Your task to perform on an android device: install app "Microsoft Authenticator" Image 0: 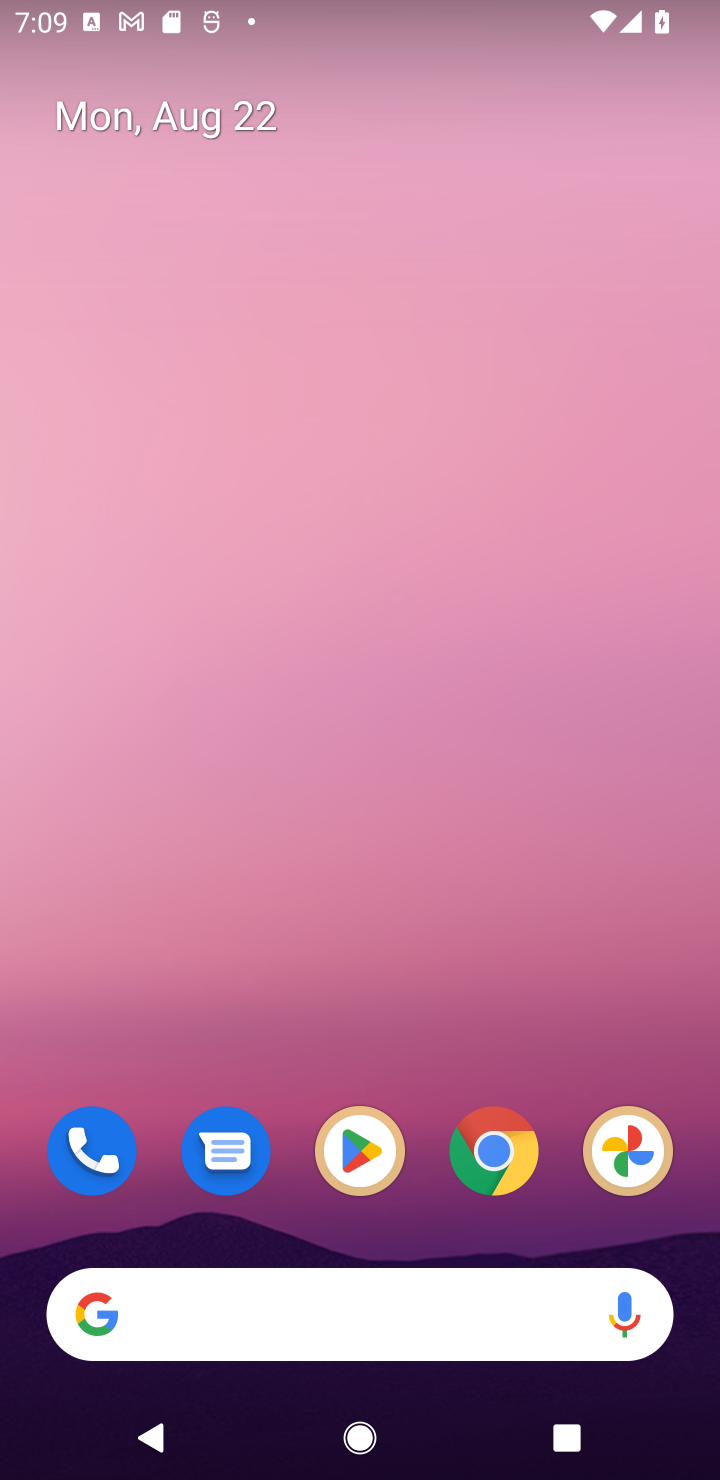
Step 0: press home button
Your task to perform on an android device: install app "Microsoft Authenticator" Image 1: 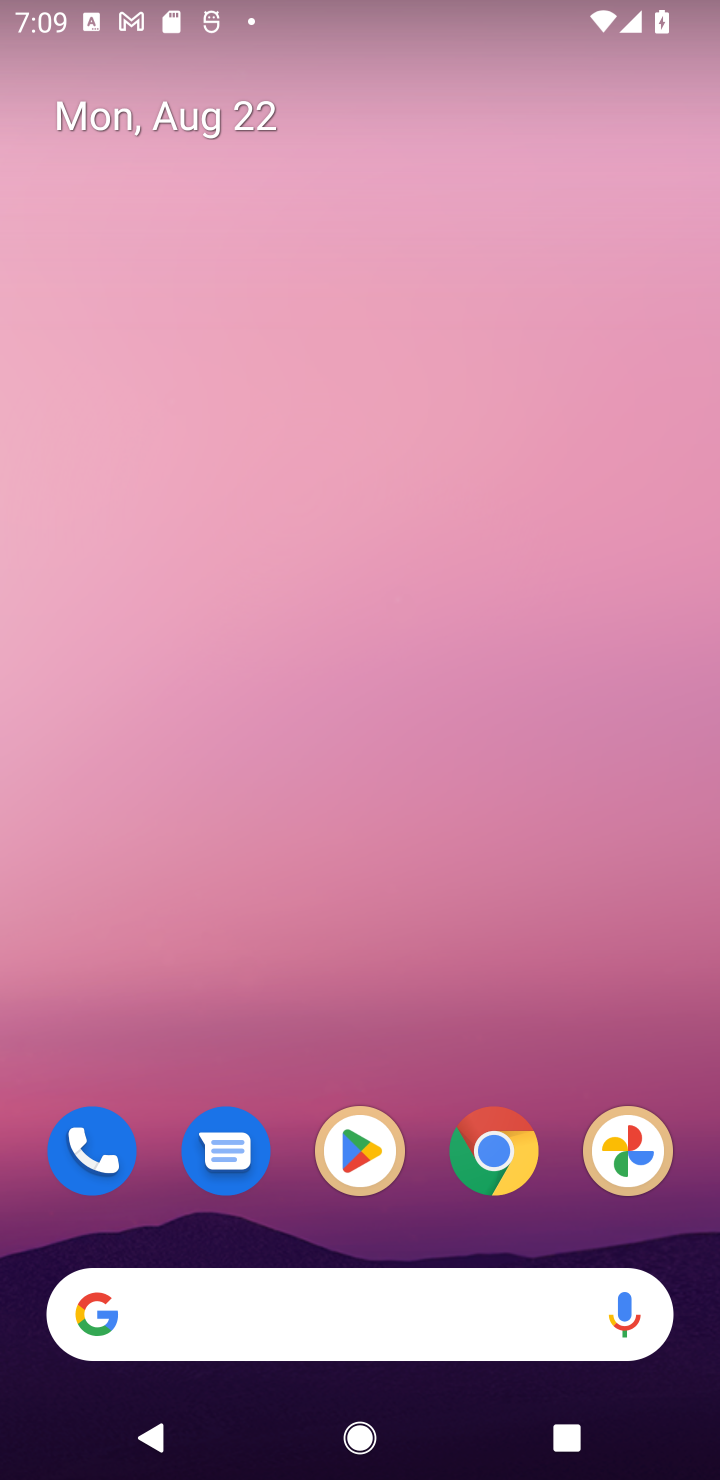
Step 1: click (348, 1150)
Your task to perform on an android device: install app "Microsoft Authenticator" Image 2: 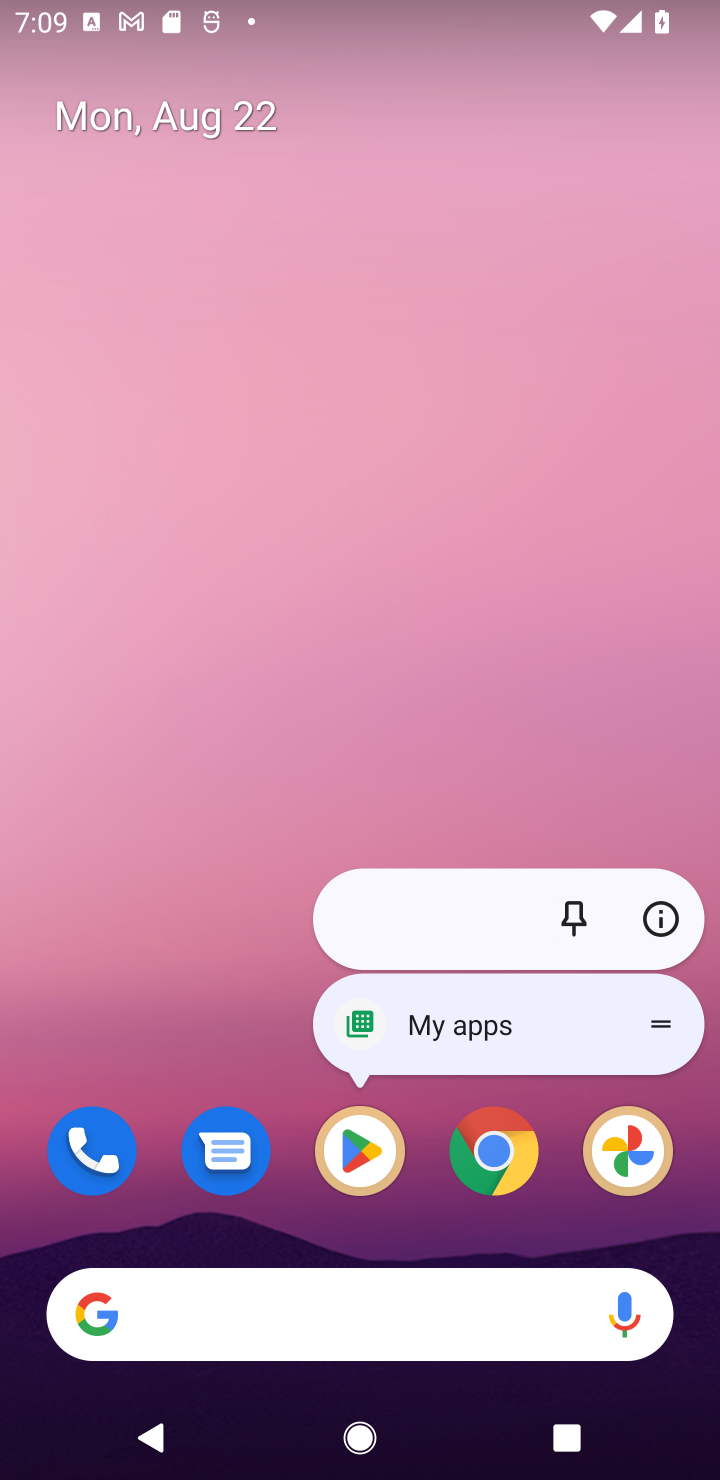
Step 2: click (363, 1166)
Your task to perform on an android device: install app "Microsoft Authenticator" Image 3: 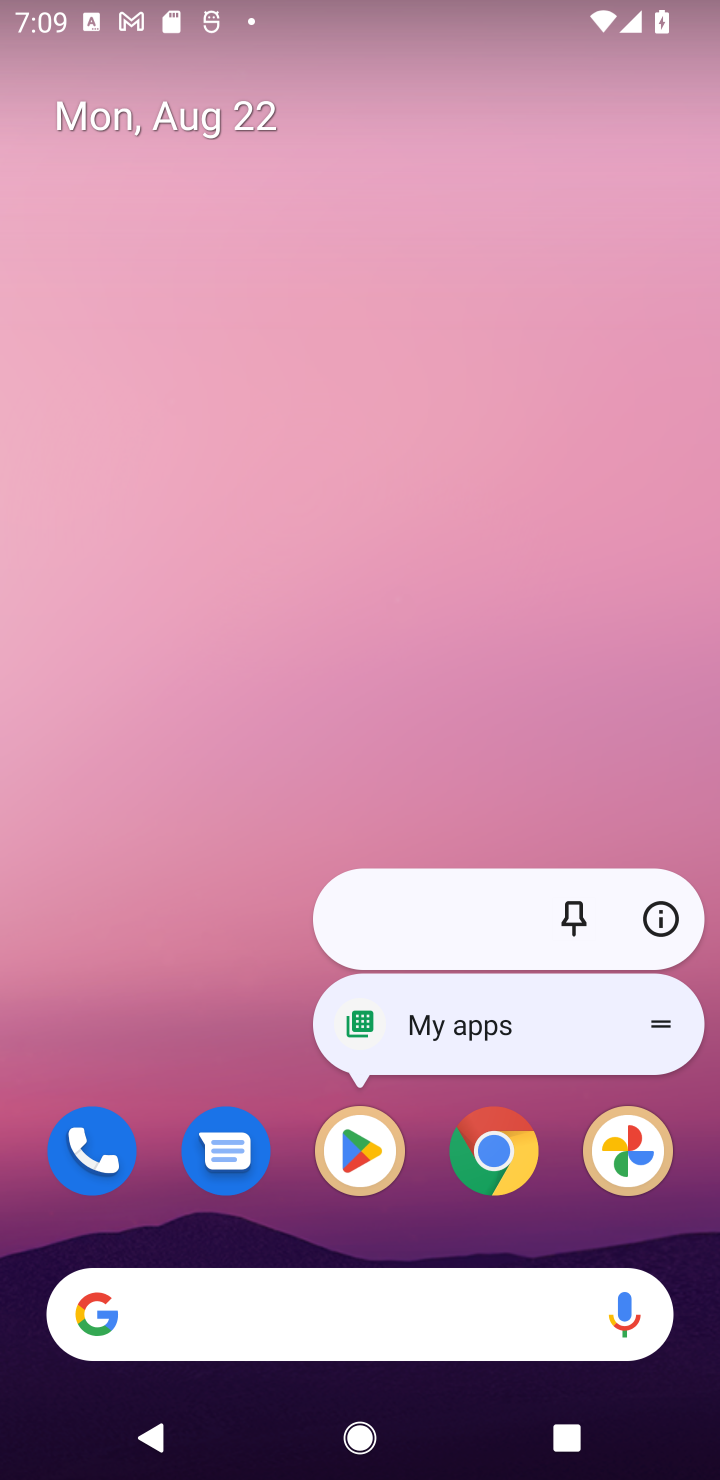
Step 3: click (363, 1166)
Your task to perform on an android device: install app "Microsoft Authenticator" Image 4: 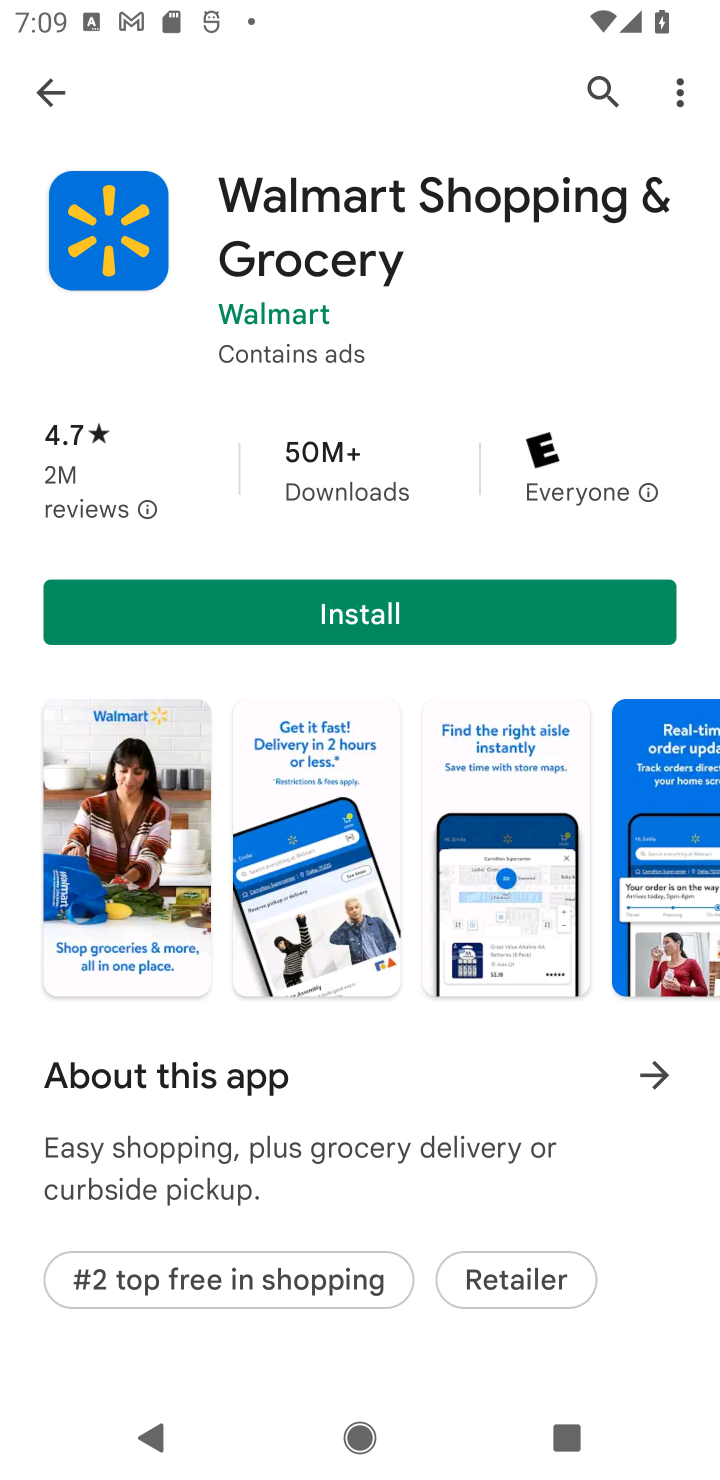
Step 4: click (605, 91)
Your task to perform on an android device: install app "Microsoft Authenticator" Image 5: 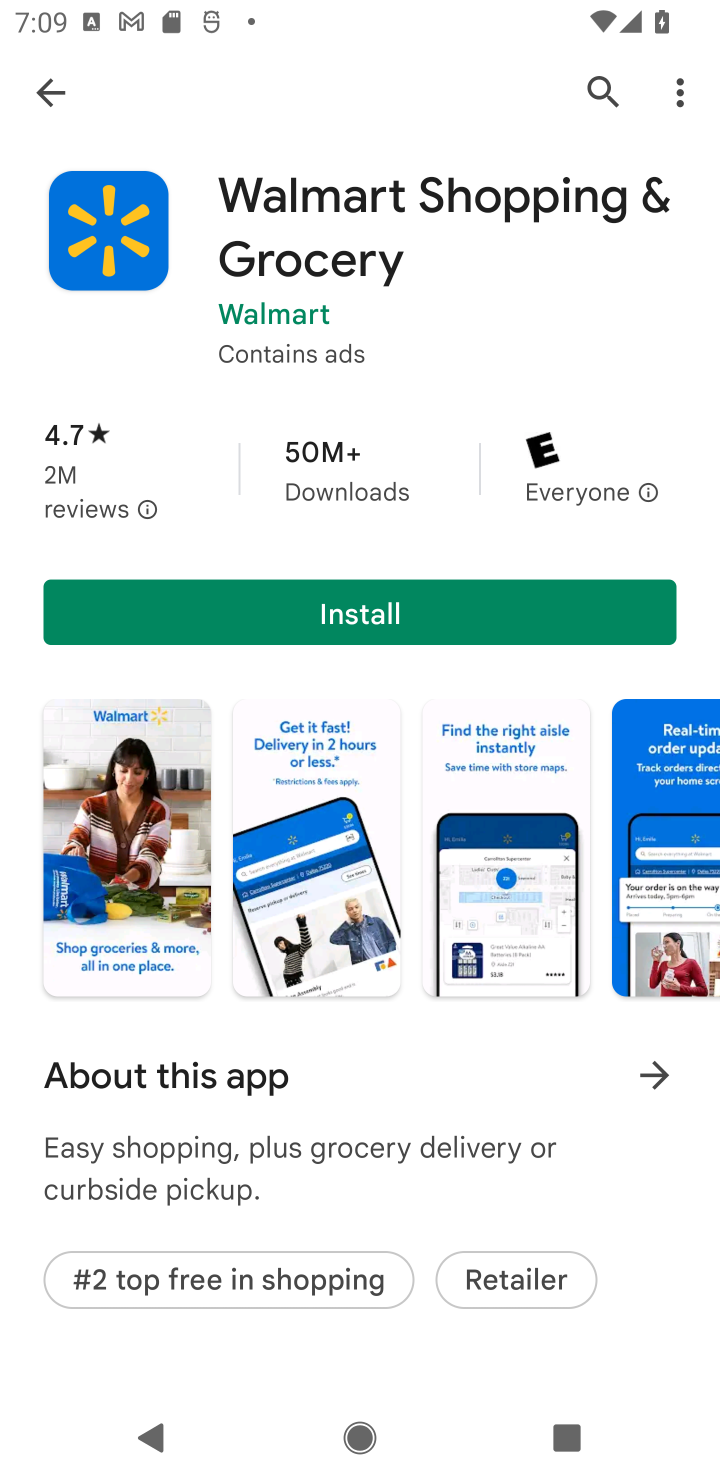
Step 5: click (589, 91)
Your task to perform on an android device: install app "Microsoft Authenticator" Image 6: 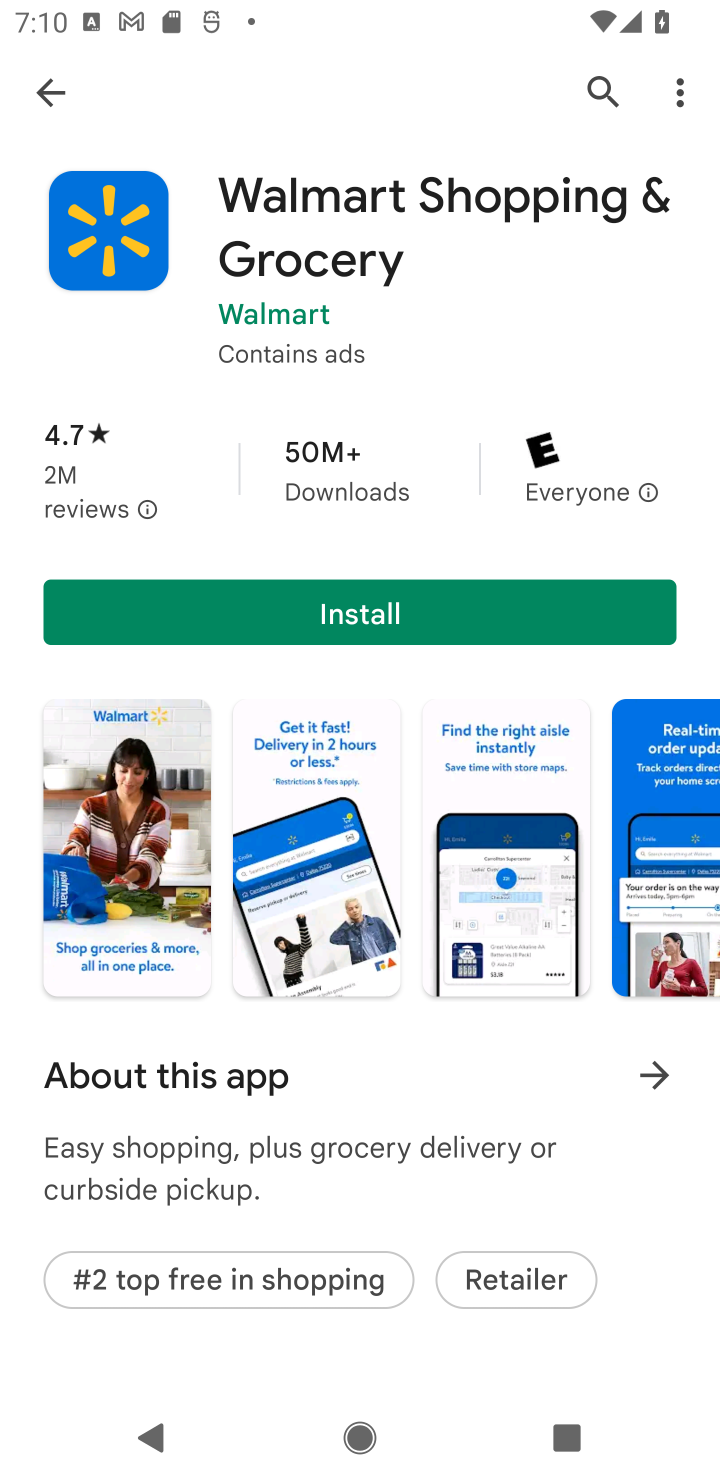
Step 6: click (598, 84)
Your task to perform on an android device: install app "Microsoft Authenticator" Image 7: 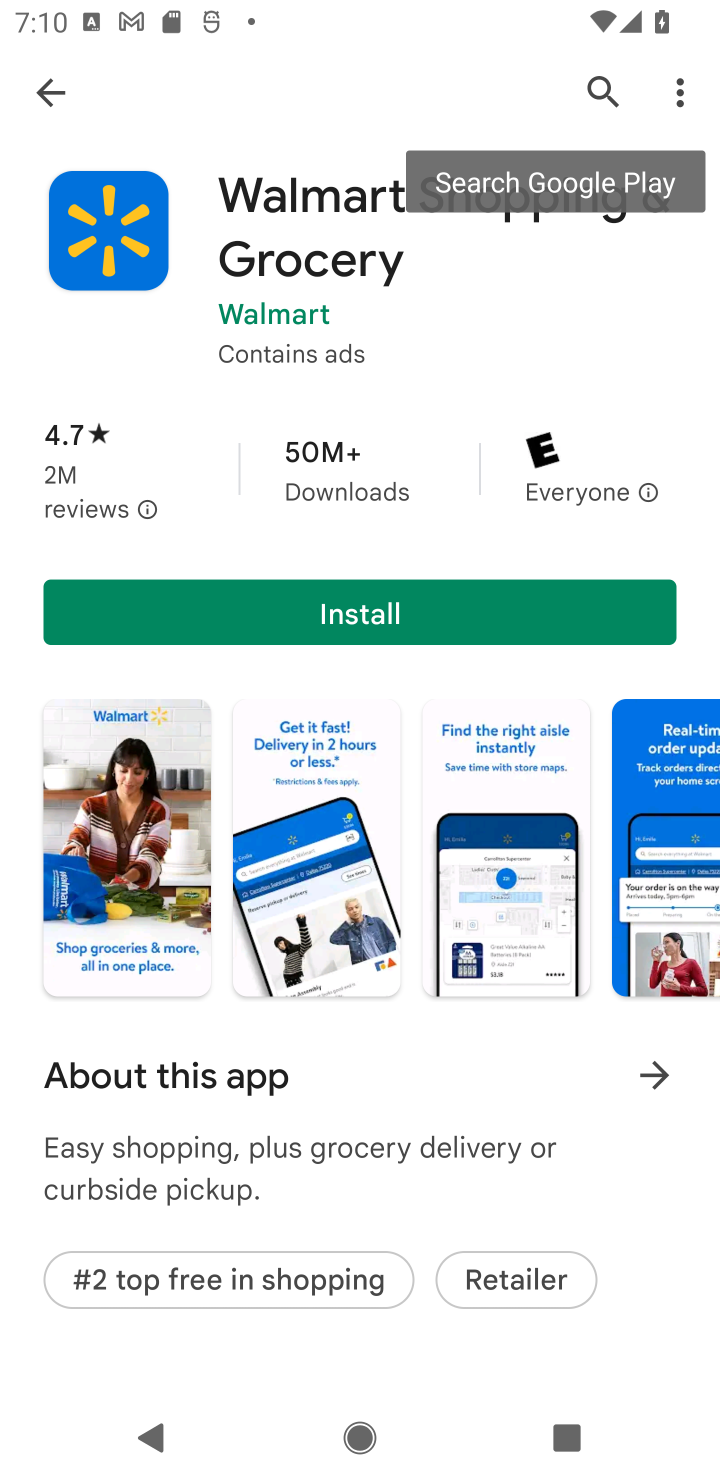
Step 7: click (598, 84)
Your task to perform on an android device: install app "Microsoft Authenticator" Image 8: 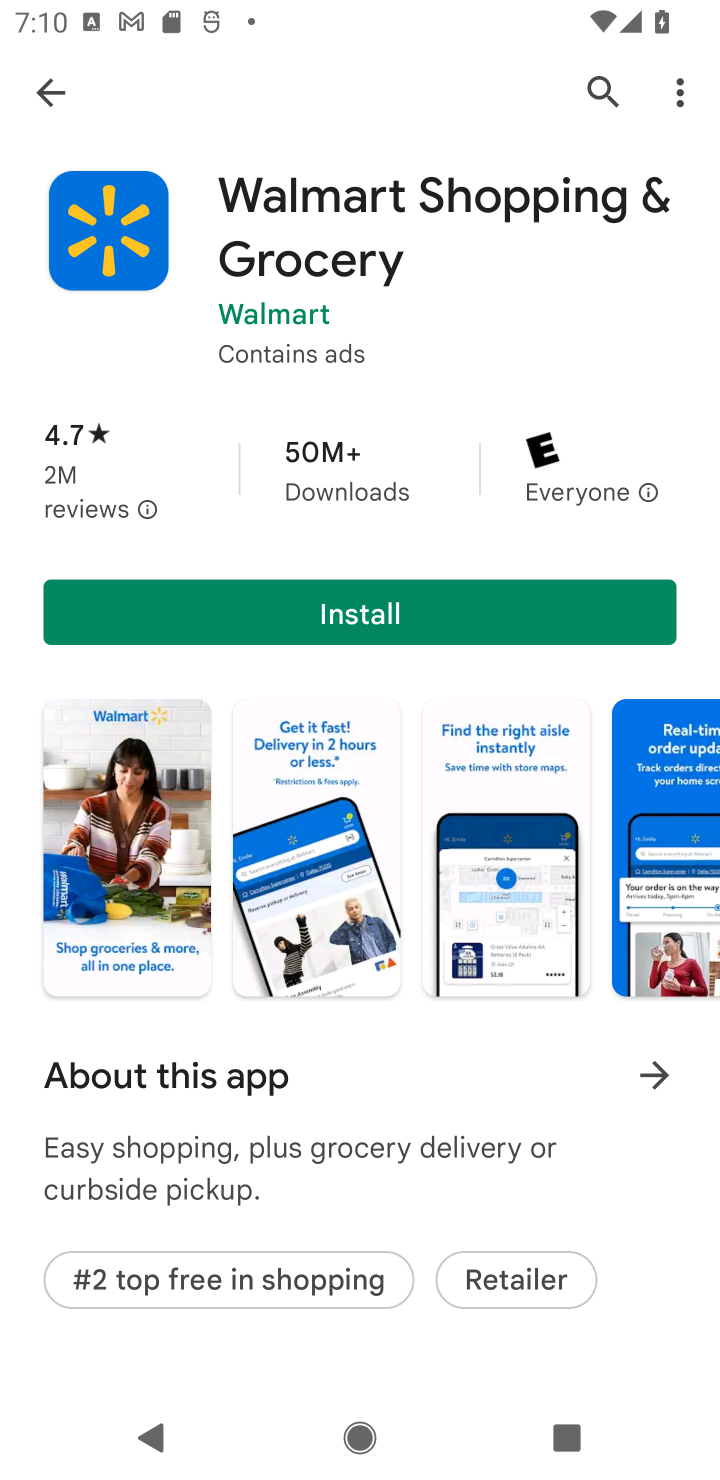
Step 8: click (597, 87)
Your task to perform on an android device: install app "Microsoft Authenticator" Image 9: 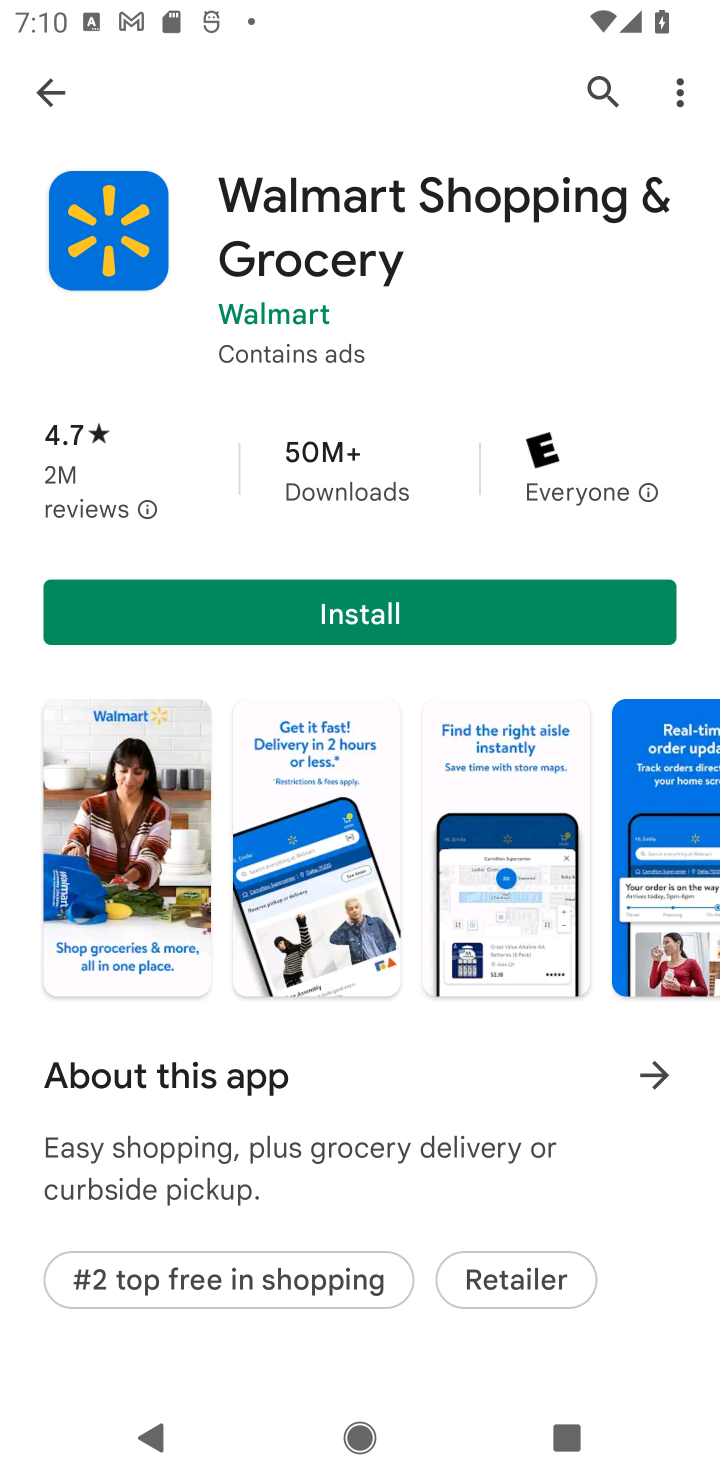
Step 9: click (595, 87)
Your task to perform on an android device: install app "Microsoft Authenticator" Image 10: 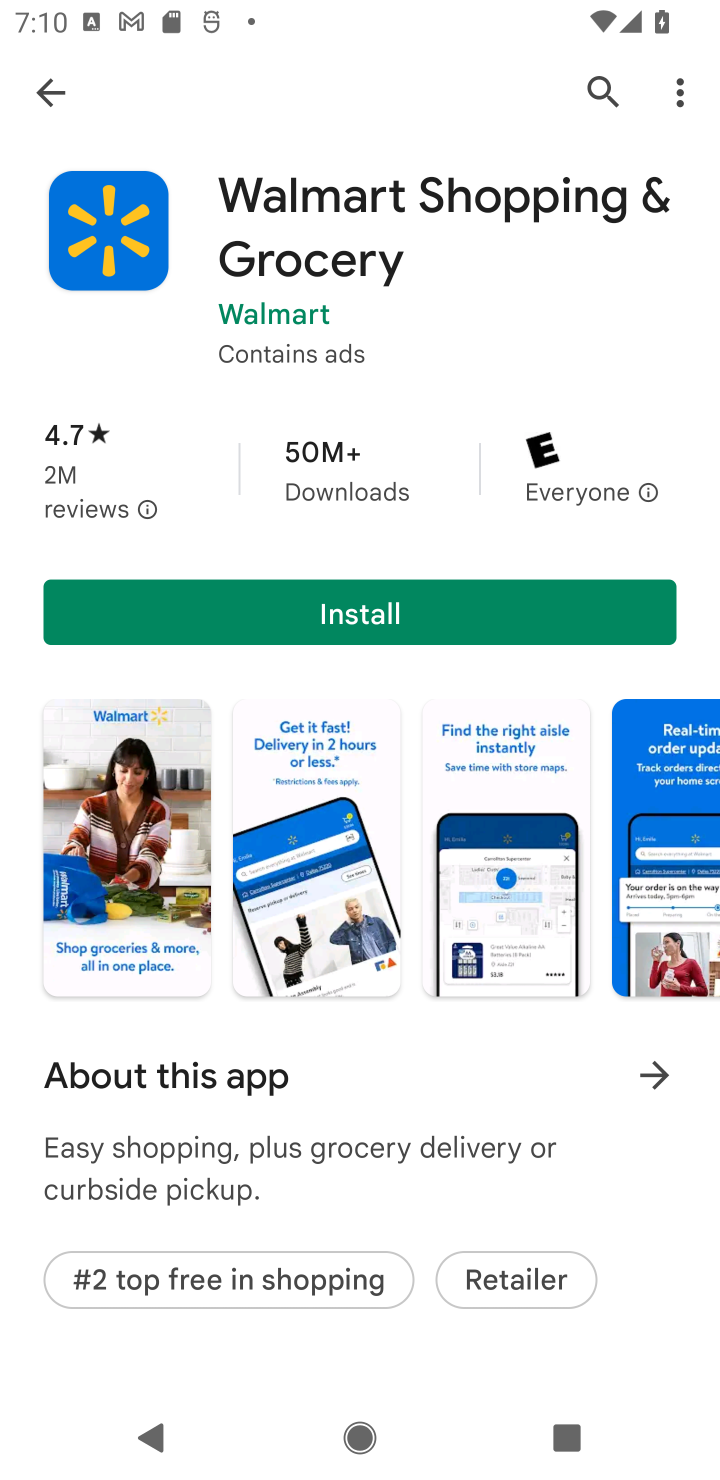
Step 10: click (44, 87)
Your task to perform on an android device: install app "Microsoft Authenticator" Image 11: 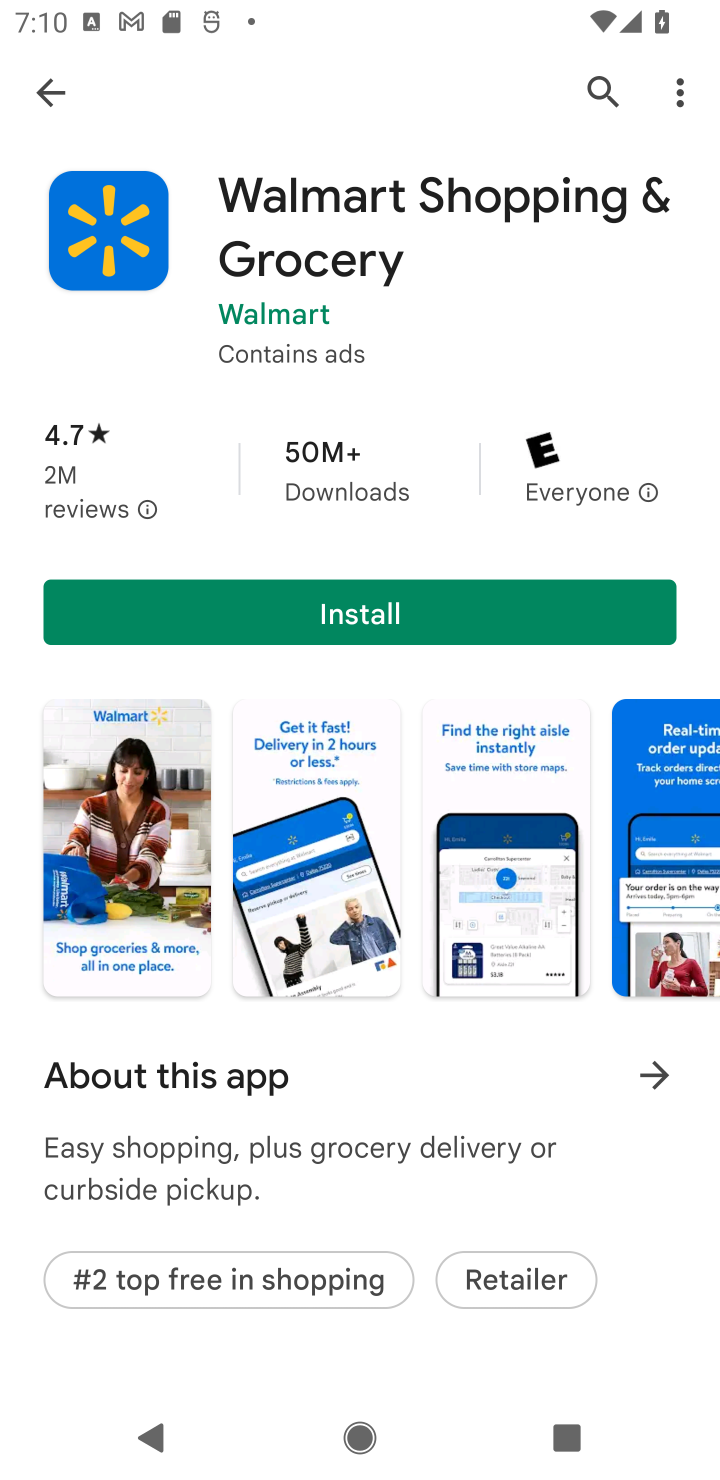
Step 11: click (598, 93)
Your task to perform on an android device: install app "Microsoft Authenticator" Image 12: 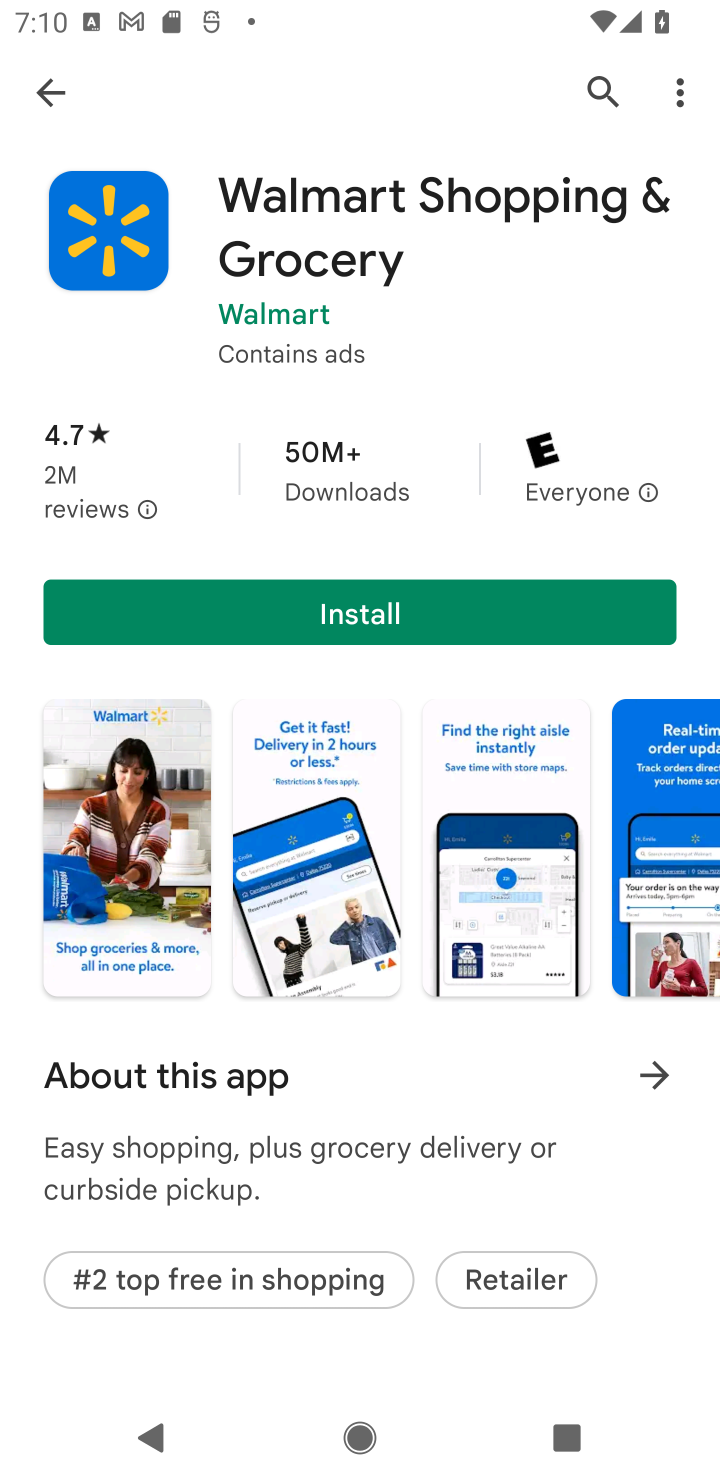
Step 12: press back button
Your task to perform on an android device: install app "Microsoft Authenticator" Image 13: 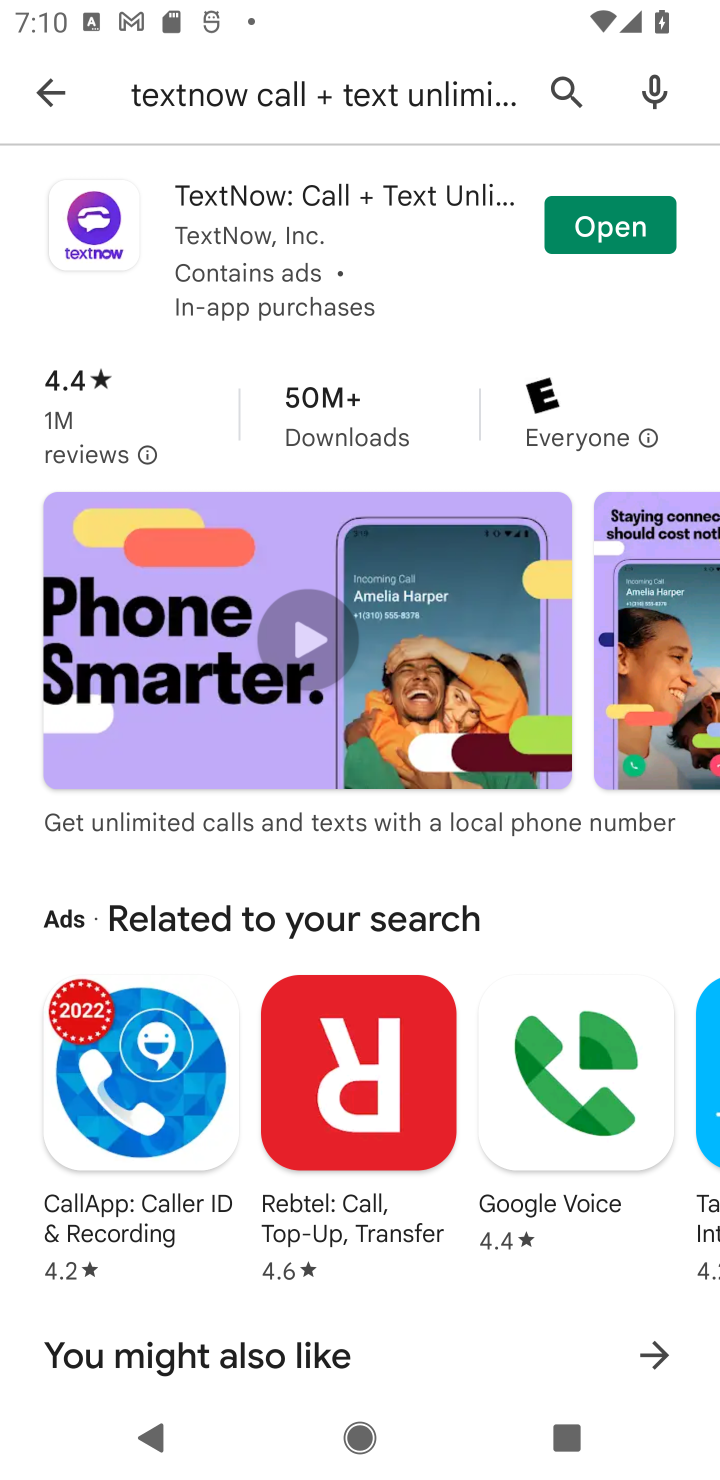
Step 13: click (559, 81)
Your task to perform on an android device: install app "Microsoft Authenticator" Image 14: 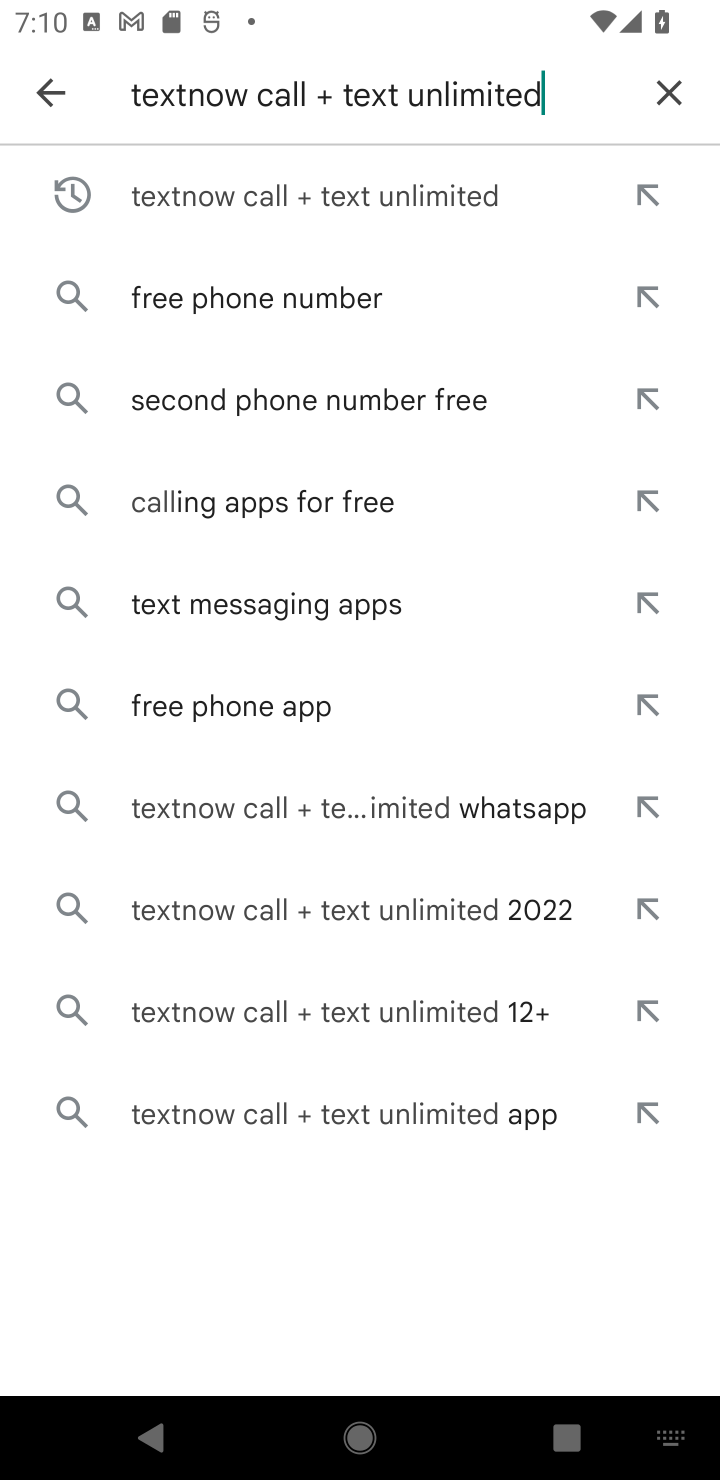
Step 14: click (553, 96)
Your task to perform on an android device: install app "Microsoft Authenticator" Image 15: 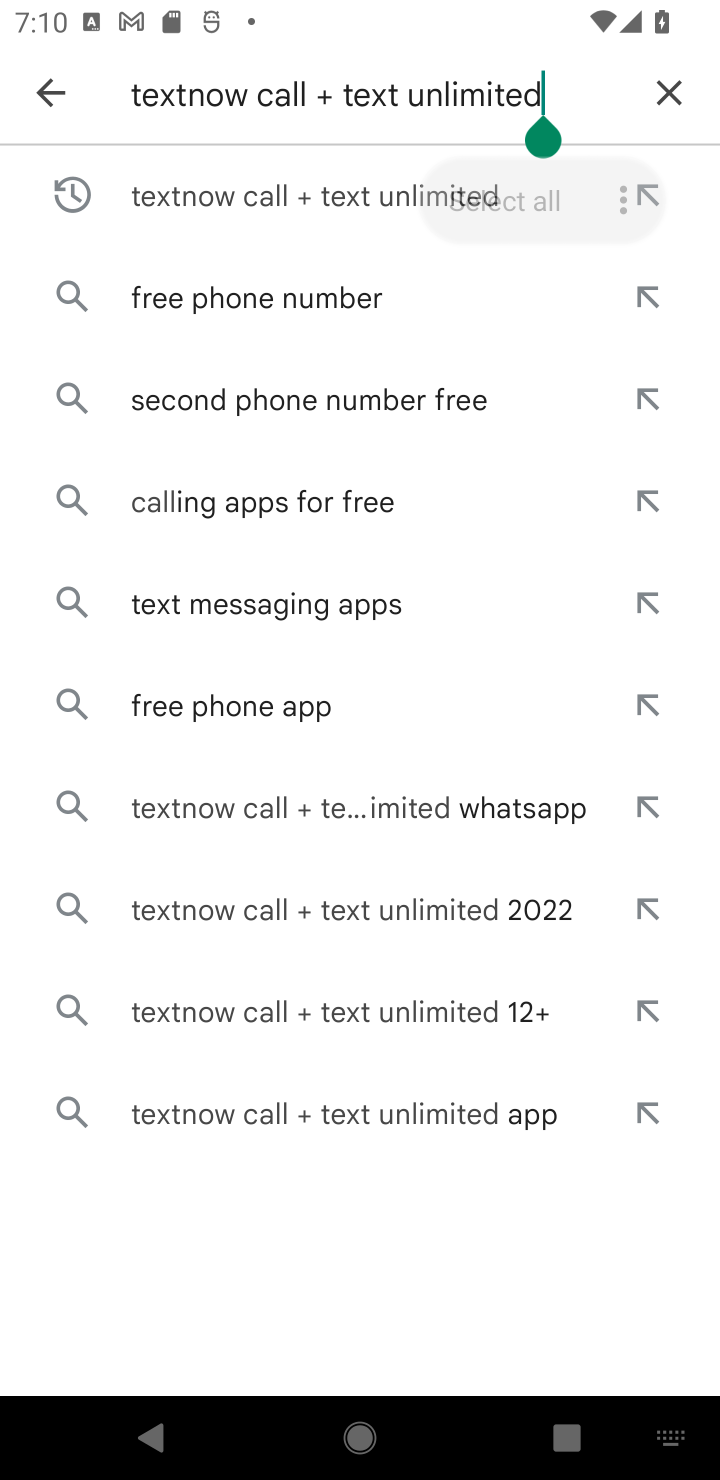
Step 15: click (658, 82)
Your task to perform on an android device: install app "Microsoft Authenticator" Image 16: 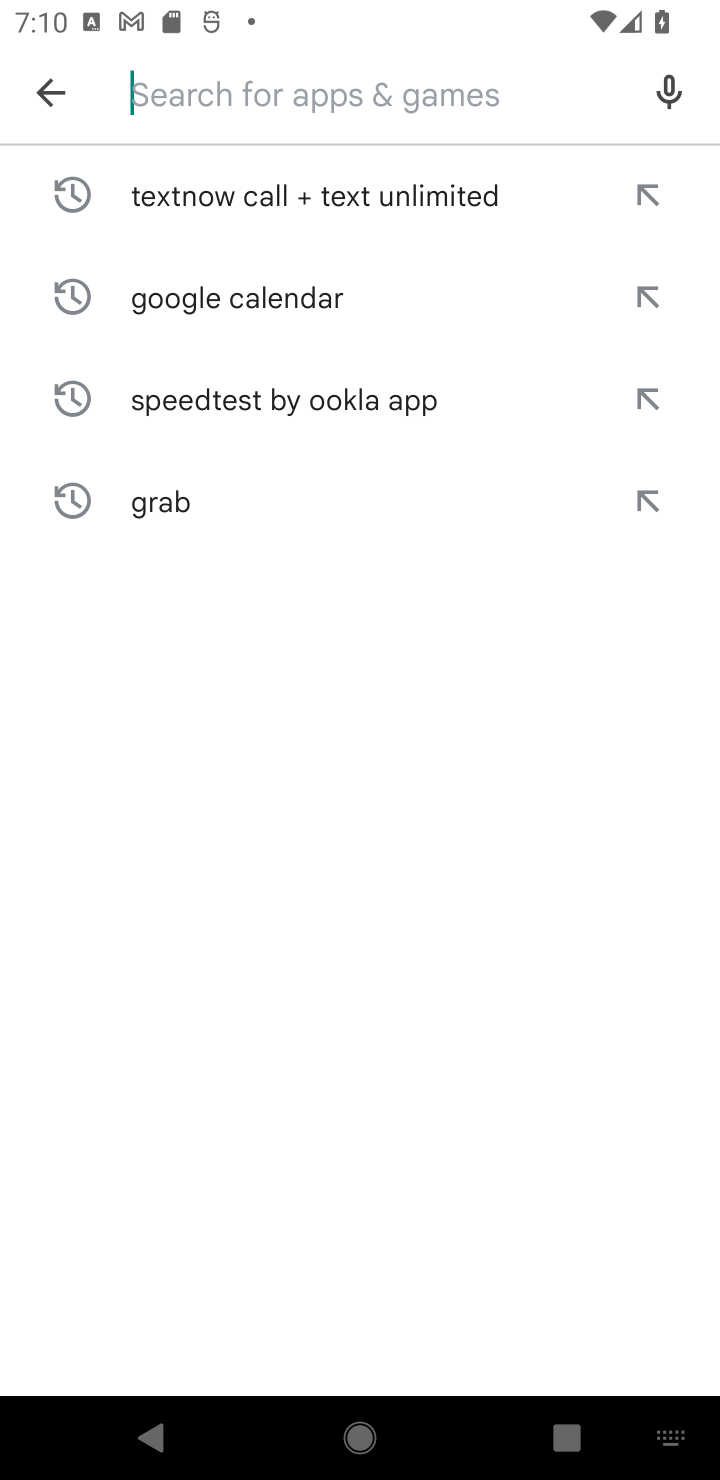
Step 16: type "Microsoft Authenticator"
Your task to perform on an android device: install app "Microsoft Authenticator" Image 17: 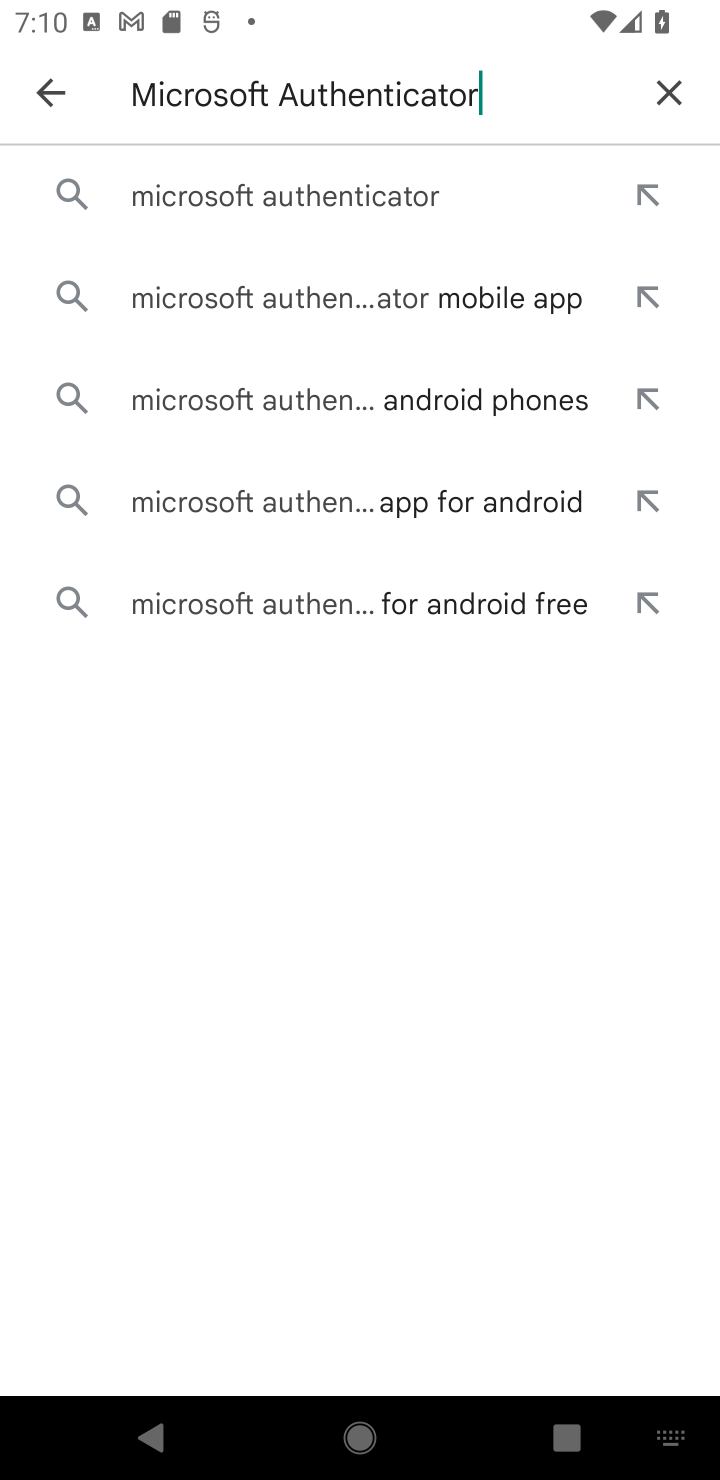
Step 17: click (282, 194)
Your task to perform on an android device: install app "Microsoft Authenticator" Image 18: 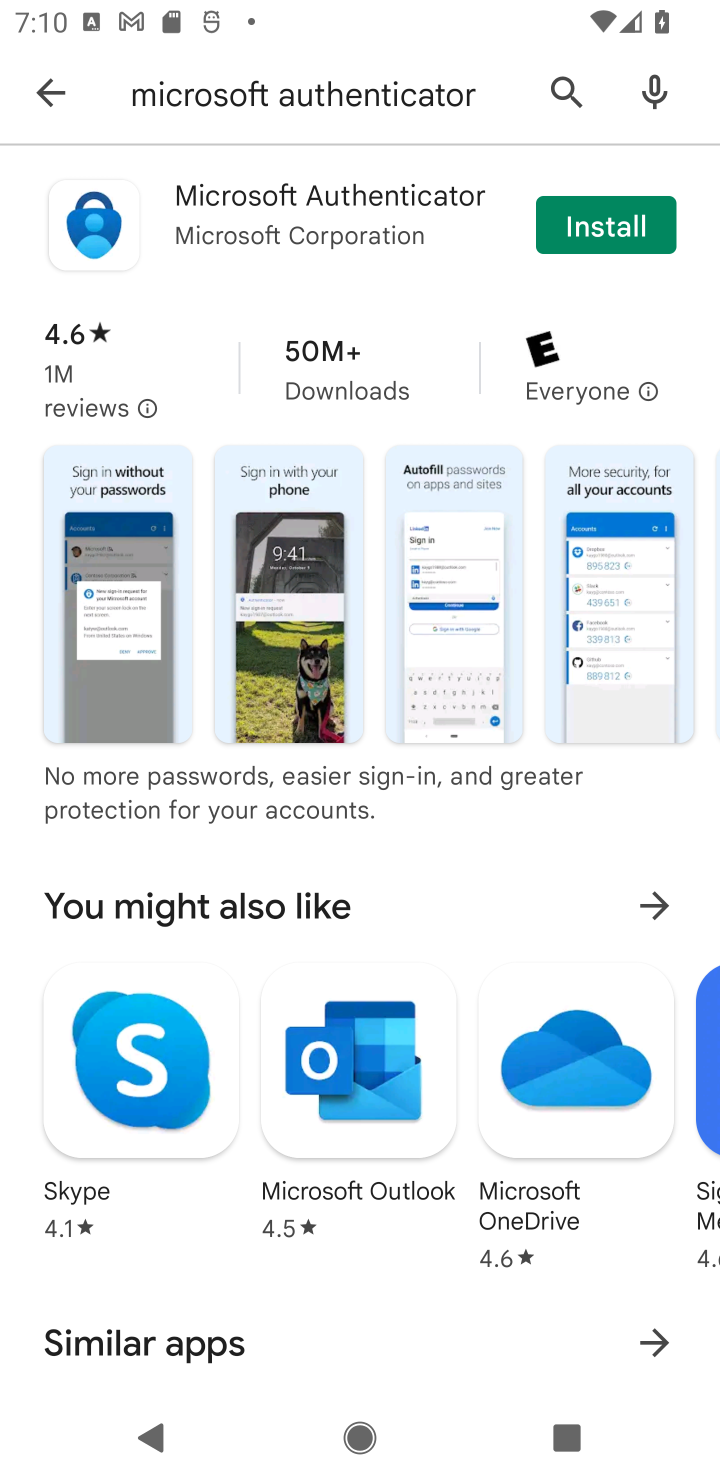
Step 18: click (612, 223)
Your task to perform on an android device: install app "Microsoft Authenticator" Image 19: 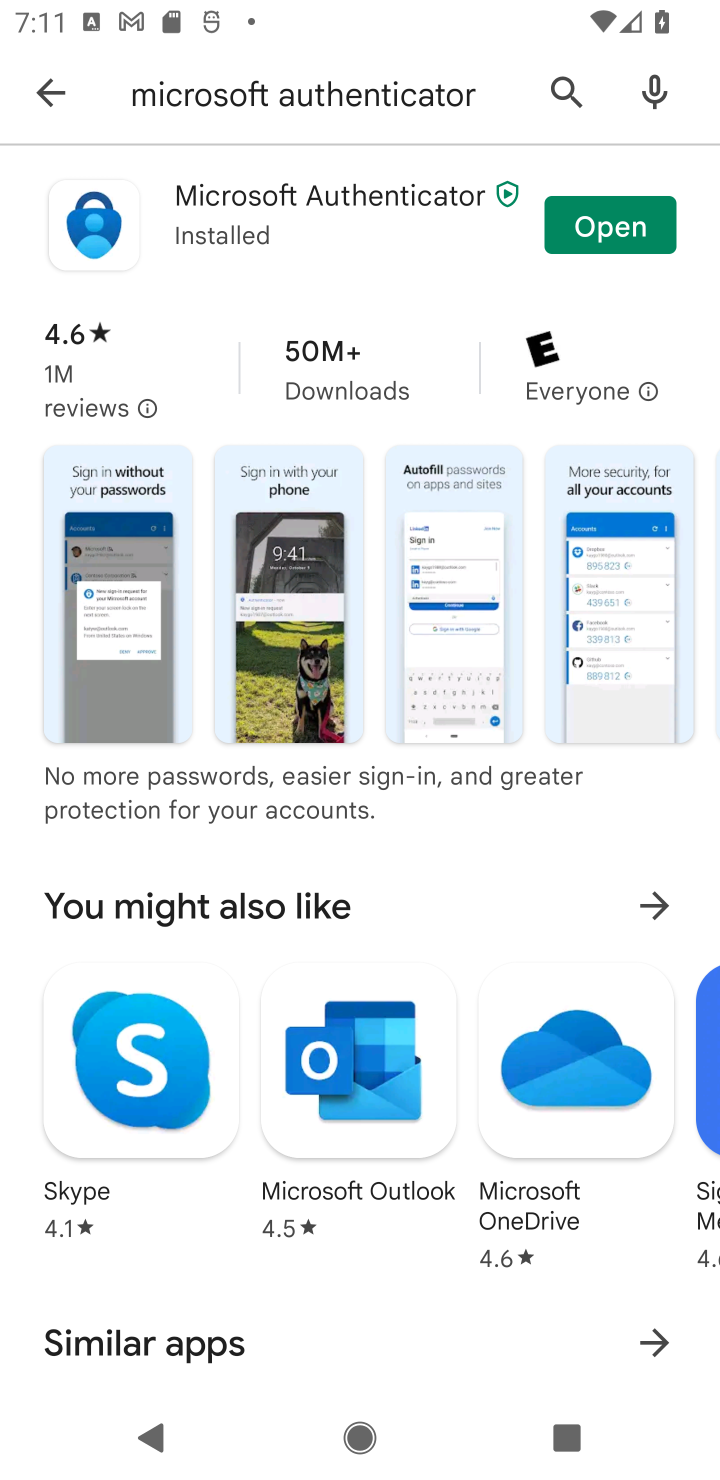
Step 19: task complete